Your task to perform on an android device: Open sound settings Image 0: 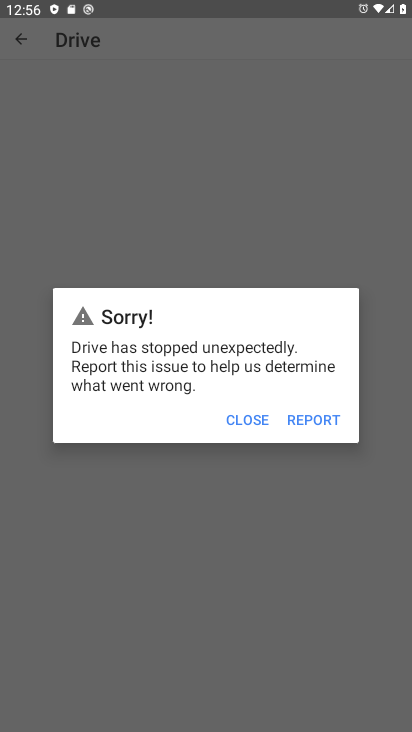
Step 0: press home button
Your task to perform on an android device: Open sound settings Image 1: 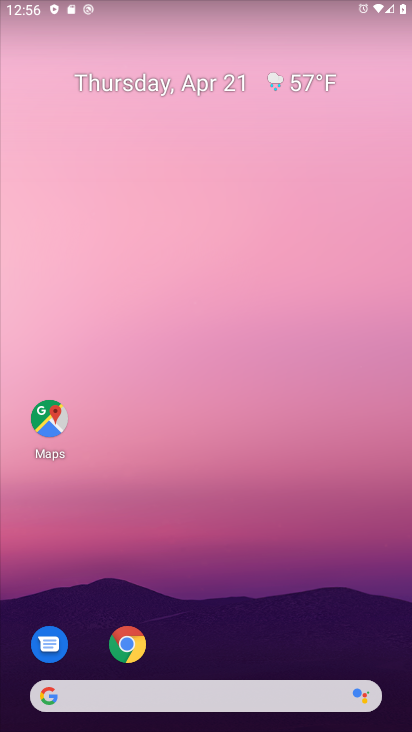
Step 1: drag from (189, 669) to (124, 16)
Your task to perform on an android device: Open sound settings Image 2: 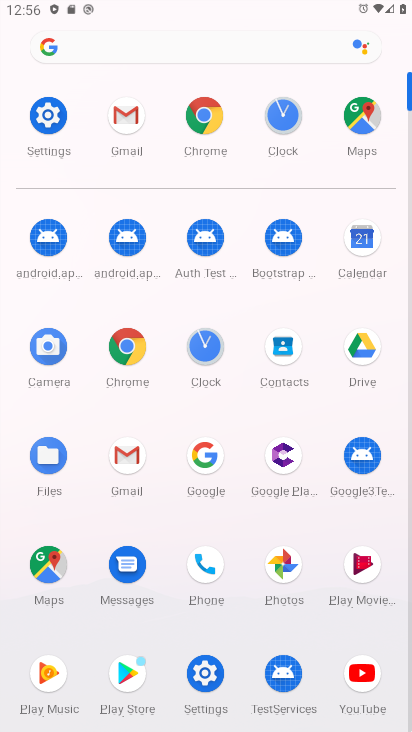
Step 2: click (56, 122)
Your task to perform on an android device: Open sound settings Image 3: 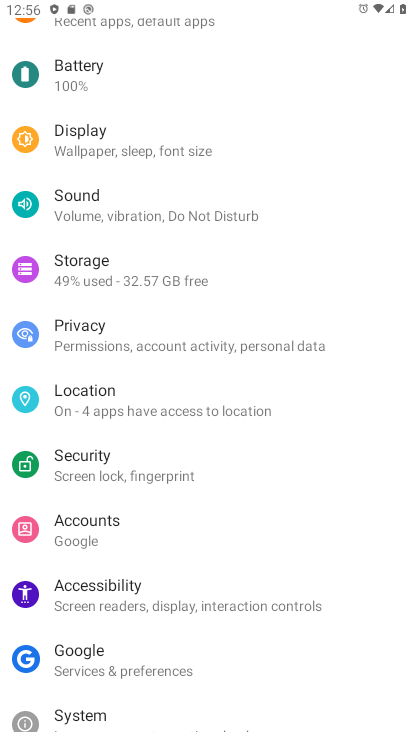
Step 3: click (95, 218)
Your task to perform on an android device: Open sound settings Image 4: 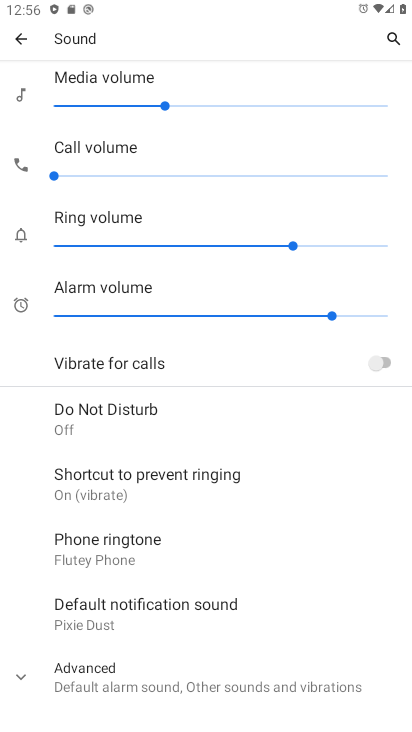
Step 4: drag from (203, 540) to (153, 178)
Your task to perform on an android device: Open sound settings Image 5: 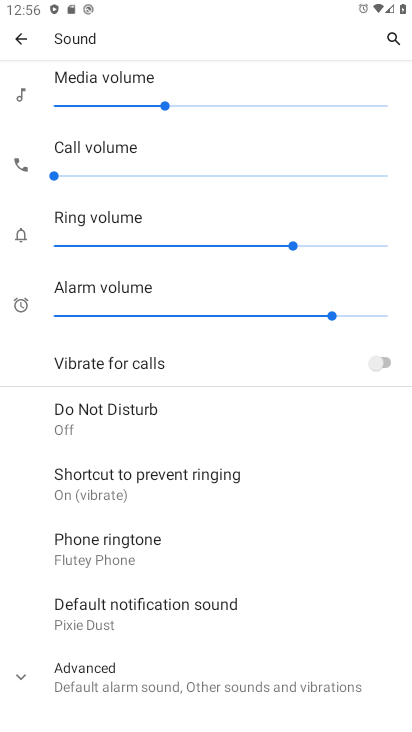
Step 5: click (180, 683)
Your task to perform on an android device: Open sound settings Image 6: 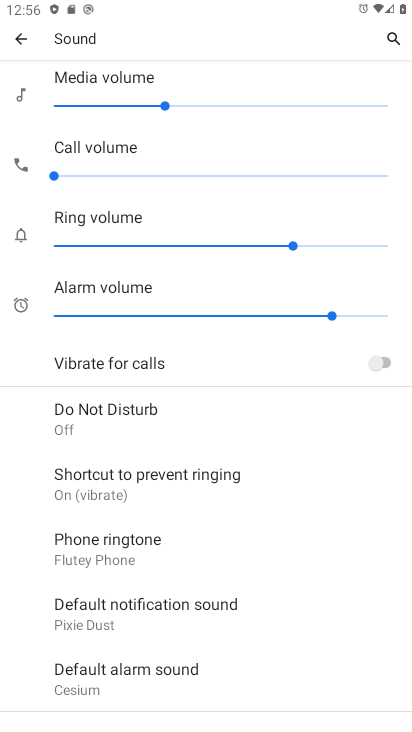
Step 6: task complete